Your task to perform on an android device: See recent photos Image 0: 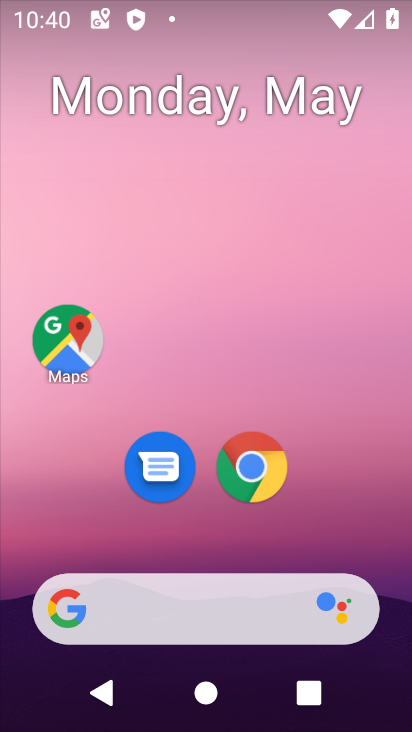
Step 0: drag from (391, 690) to (389, 214)
Your task to perform on an android device: See recent photos Image 1: 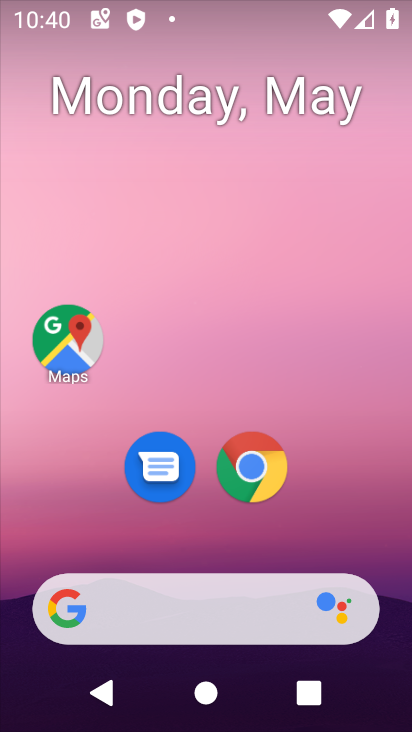
Step 1: drag from (395, 700) to (366, 49)
Your task to perform on an android device: See recent photos Image 2: 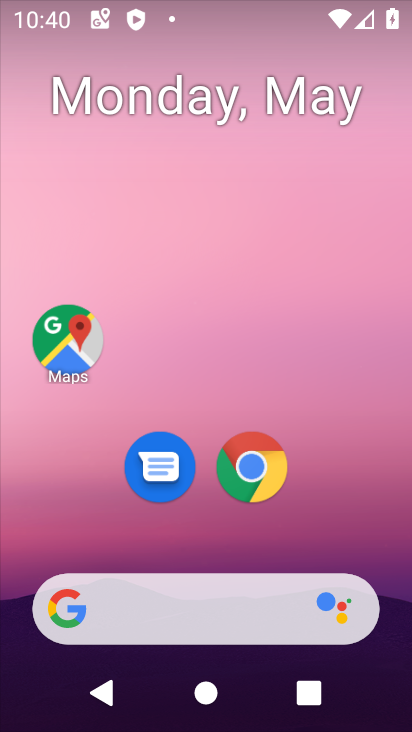
Step 2: drag from (384, 713) to (361, 93)
Your task to perform on an android device: See recent photos Image 3: 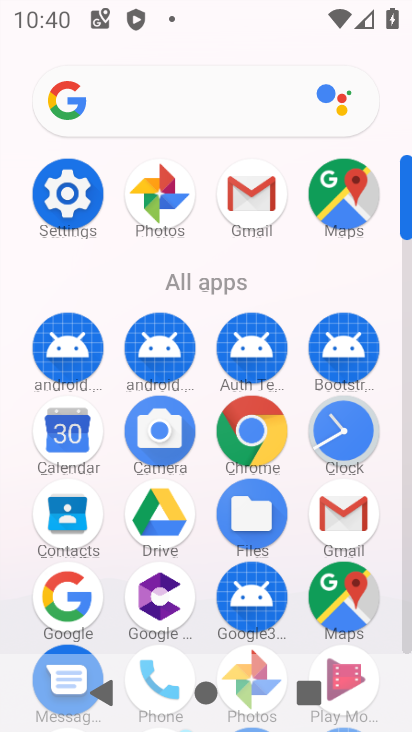
Step 3: click (170, 183)
Your task to perform on an android device: See recent photos Image 4: 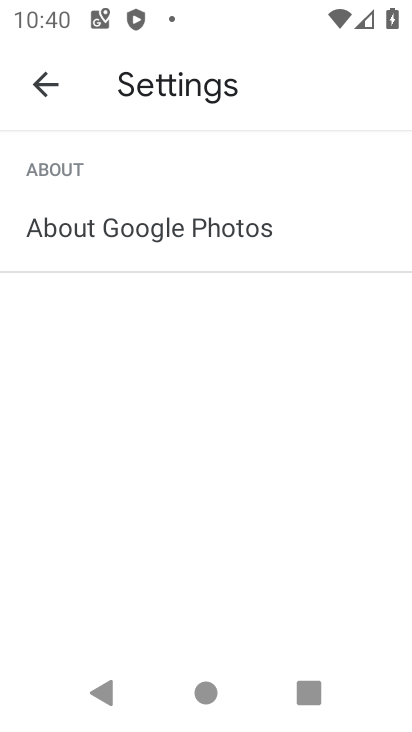
Step 4: click (41, 84)
Your task to perform on an android device: See recent photos Image 5: 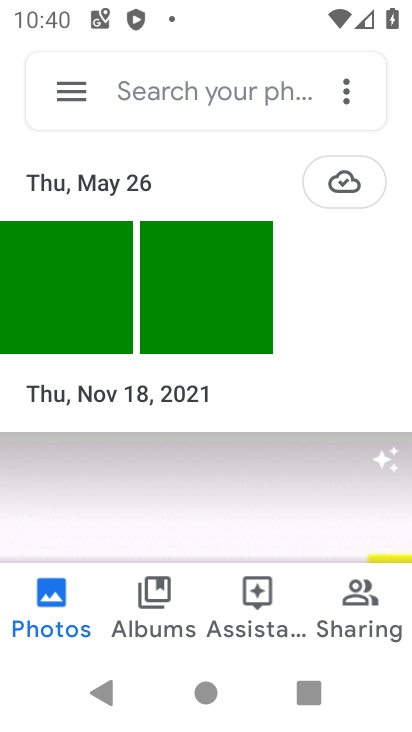
Step 5: click (91, 319)
Your task to perform on an android device: See recent photos Image 6: 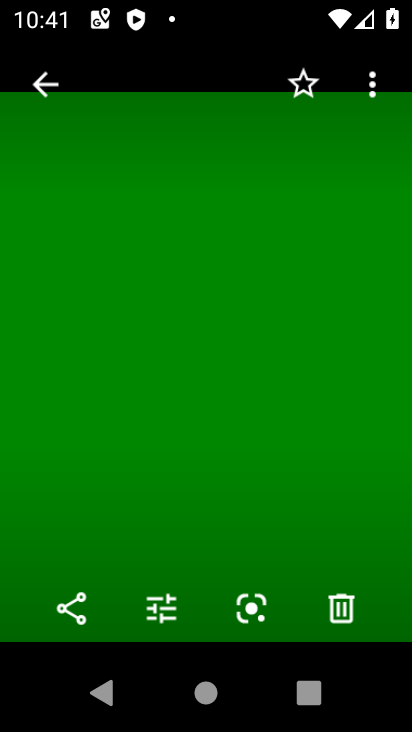
Step 6: click (49, 81)
Your task to perform on an android device: See recent photos Image 7: 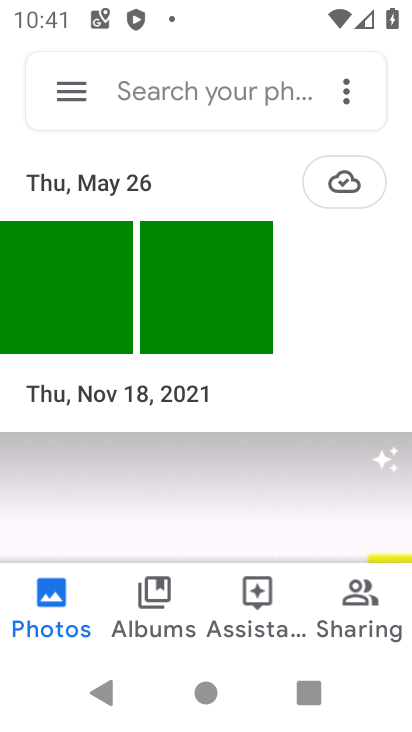
Step 7: click (199, 311)
Your task to perform on an android device: See recent photos Image 8: 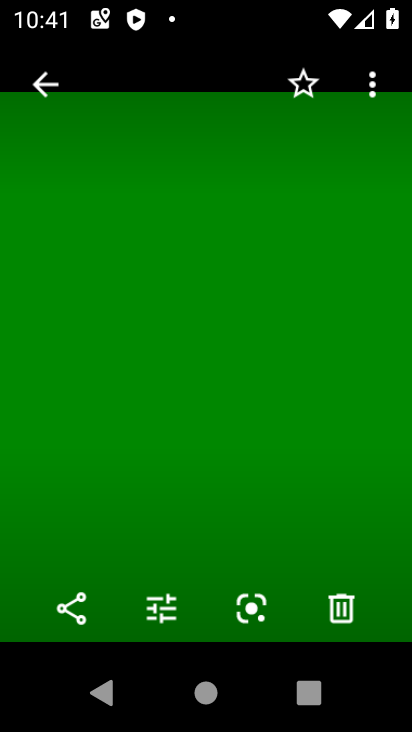
Step 8: click (26, 81)
Your task to perform on an android device: See recent photos Image 9: 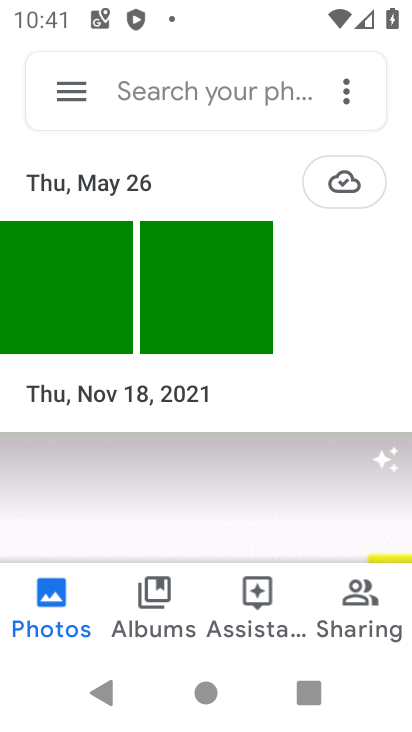
Step 9: task complete